Your task to perform on an android device: Open privacy settings Image 0: 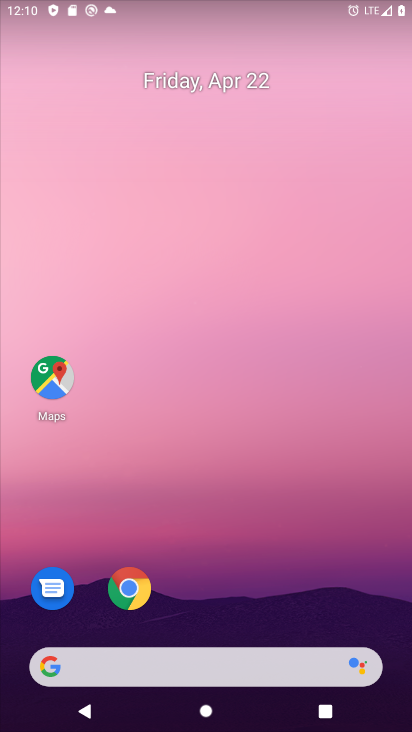
Step 0: drag from (241, 697) to (279, 171)
Your task to perform on an android device: Open privacy settings Image 1: 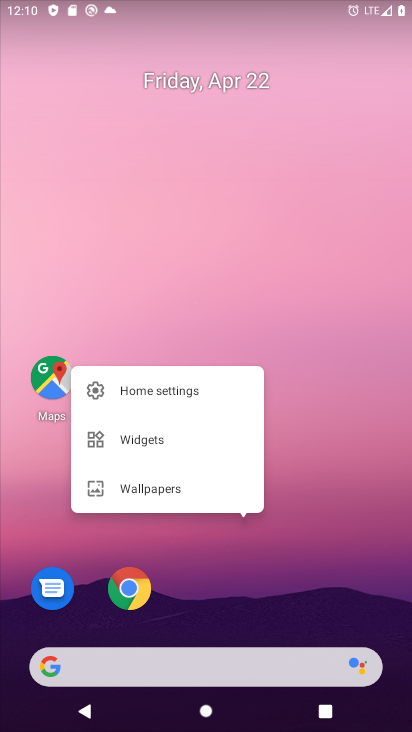
Step 1: click (205, 225)
Your task to perform on an android device: Open privacy settings Image 2: 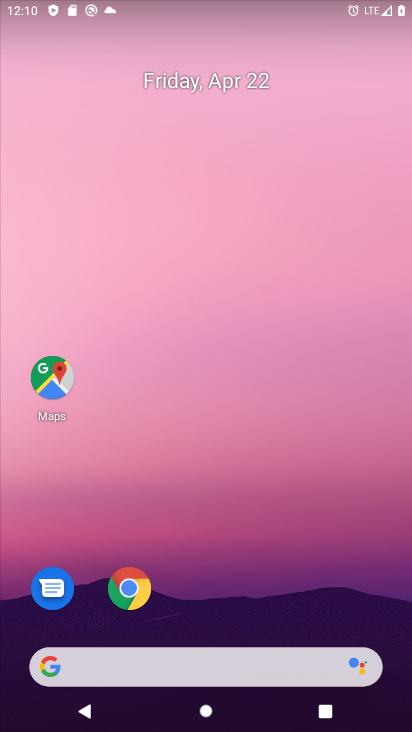
Step 2: drag from (247, 688) to (199, 252)
Your task to perform on an android device: Open privacy settings Image 3: 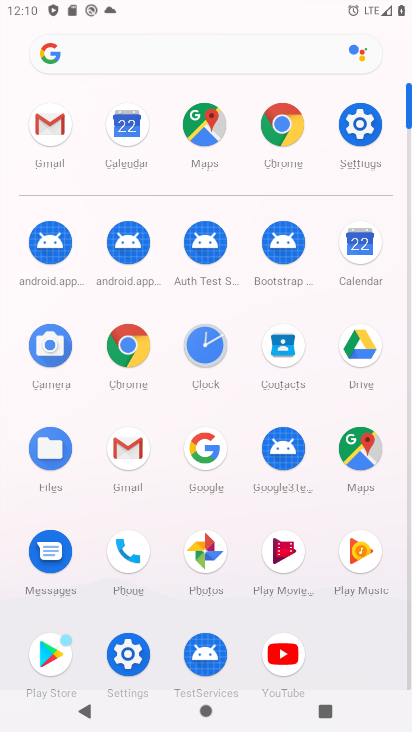
Step 3: click (125, 641)
Your task to perform on an android device: Open privacy settings Image 4: 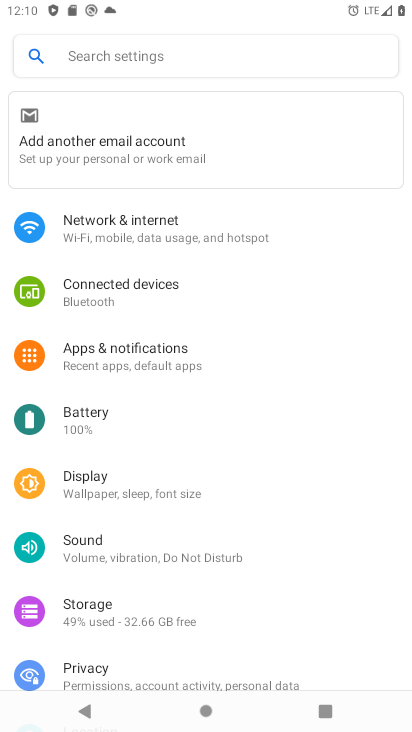
Step 4: click (95, 664)
Your task to perform on an android device: Open privacy settings Image 5: 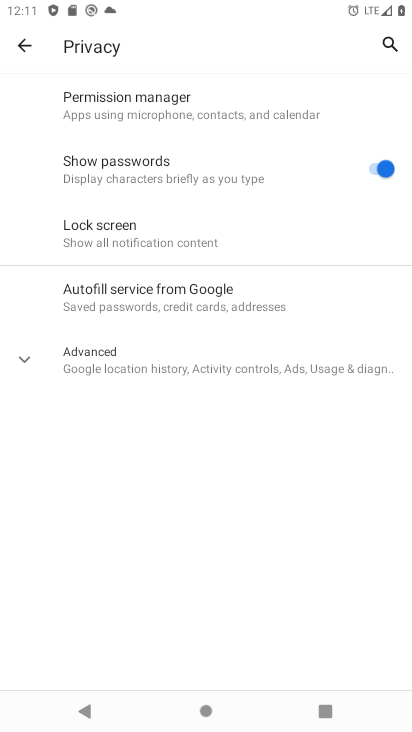
Step 5: task complete